Your task to perform on an android device: search for starred emails in the gmail app Image 0: 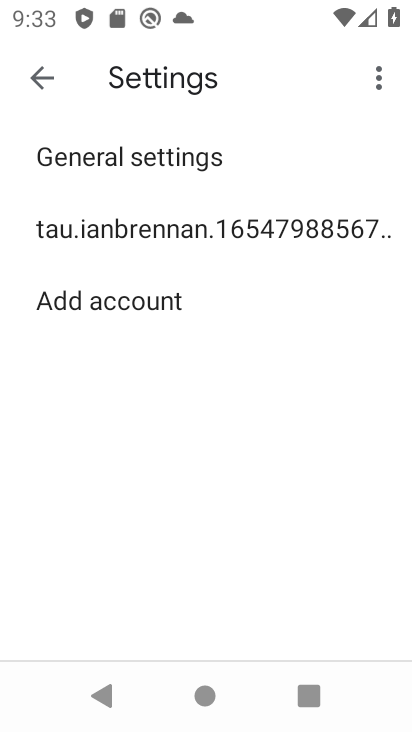
Step 0: press back button
Your task to perform on an android device: search for starred emails in the gmail app Image 1: 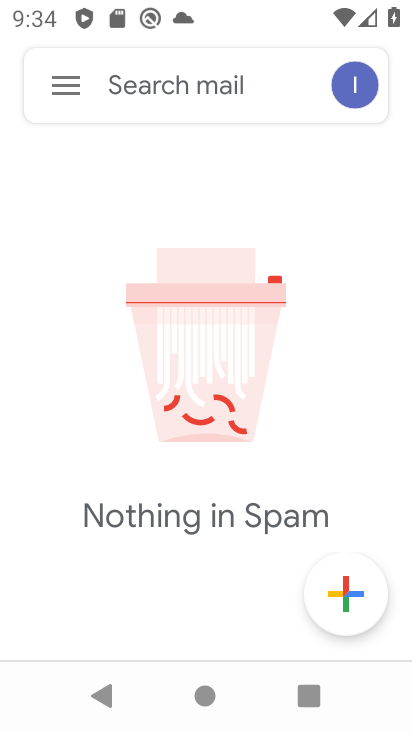
Step 1: click (55, 83)
Your task to perform on an android device: search for starred emails in the gmail app Image 2: 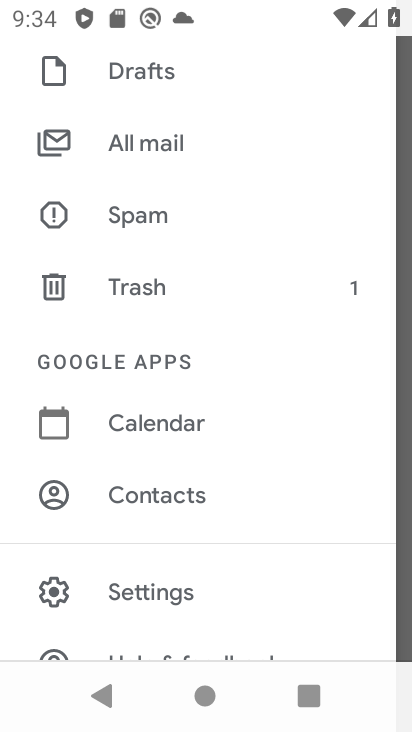
Step 2: drag from (279, 178) to (315, 488)
Your task to perform on an android device: search for starred emails in the gmail app Image 3: 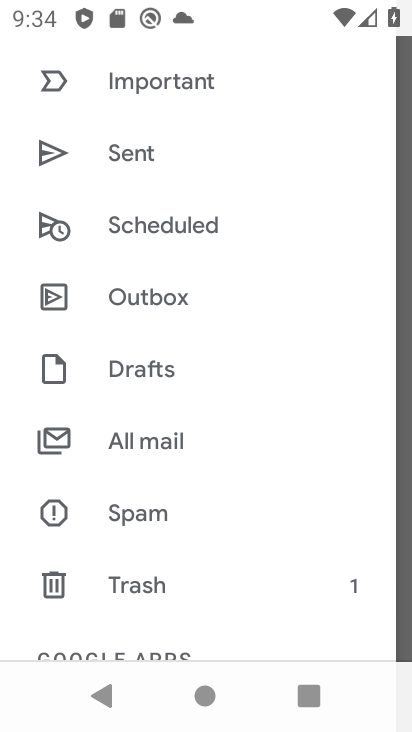
Step 3: drag from (262, 273) to (269, 579)
Your task to perform on an android device: search for starred emails in the gmail app Image 4: 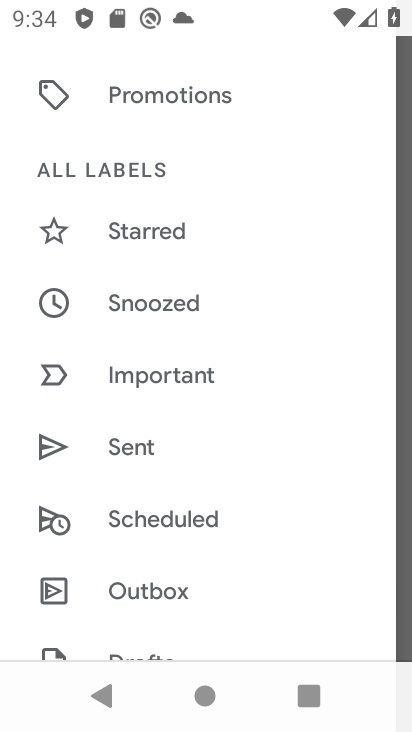
Step 4: click (157, 226)
Your task to perform on an android device: search for starred emails in the gmail app Image 5: 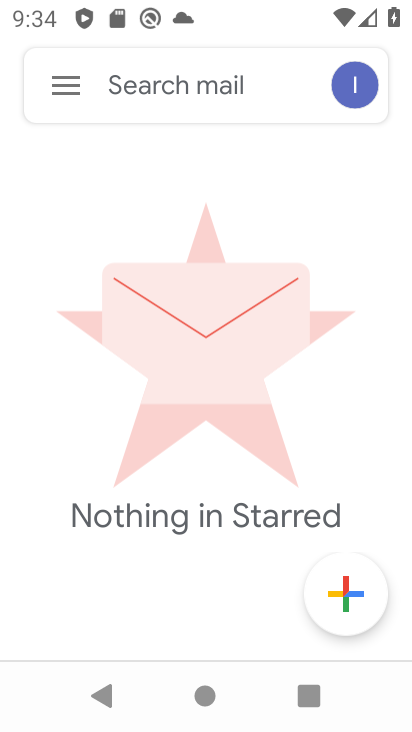
Step 5: task complete